Your task to perform on an android device: Go to battery settings Image 0: 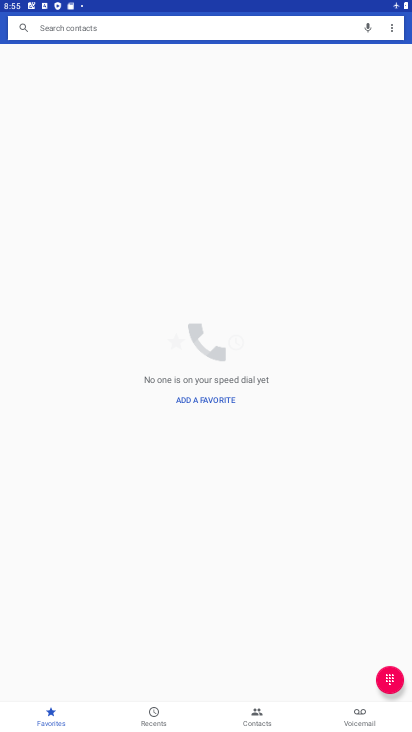
Step 0: press home button
Your task to perform on an android device: Go to battery settings Image 1: 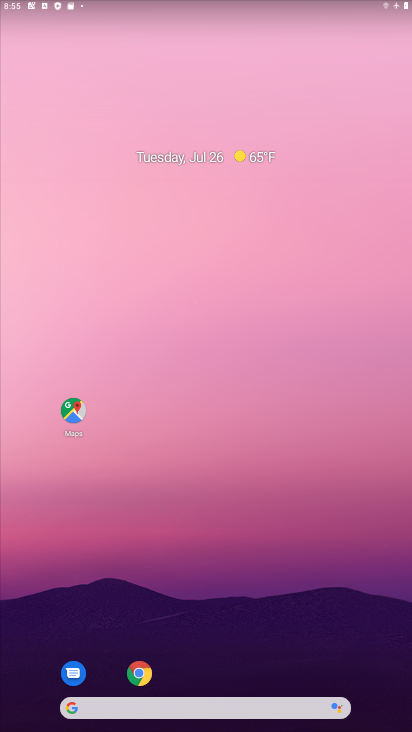
Step 1: drag from (200, 676) to (174, 115)
Your task to perform on an android device: Go to battery settings Image 2: 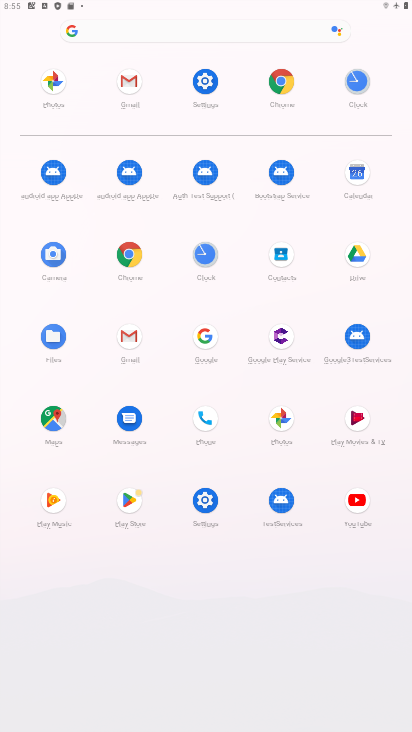
Step 2: click (196, 86)
Your task to perform on an android device: Go to battery settings Image 3: 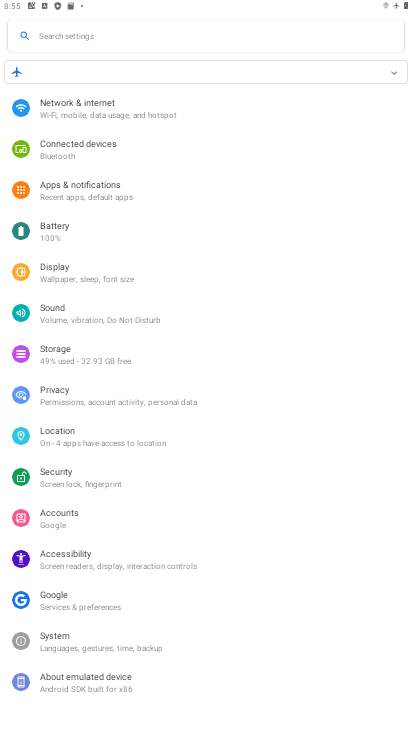
Step 3: click (100, 227)
Your task to perform on an android device: Go to battery settings Image 4: 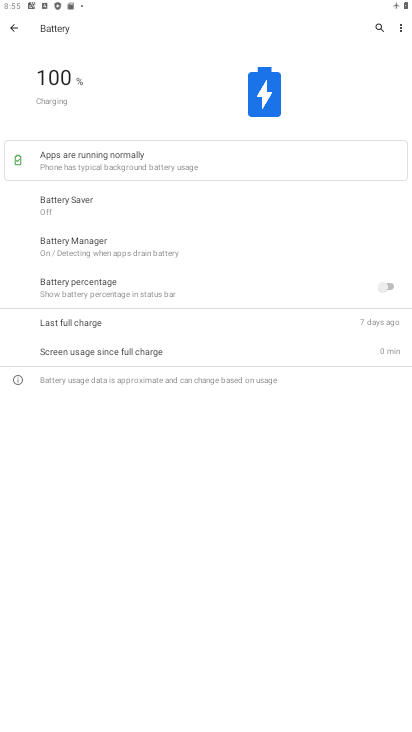
Step 4: task complete